Your task to perform on an android device: turn on improve location accuracy Image 0: 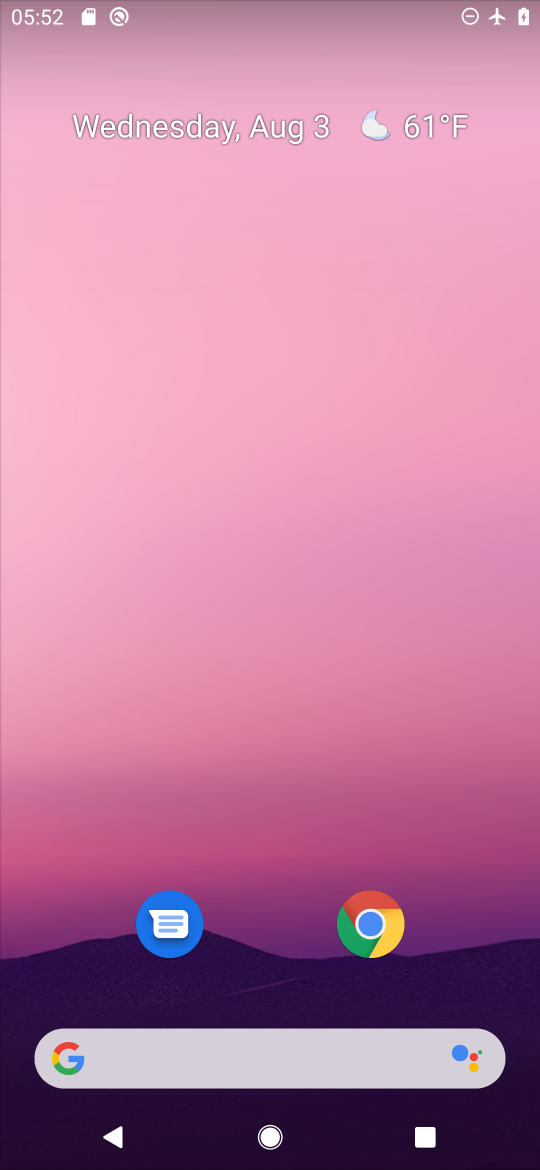
Step 0: drag from (264, 933) to (264, 426)
Your task to perform on an android device: turn on improve location accuracy Image 1: 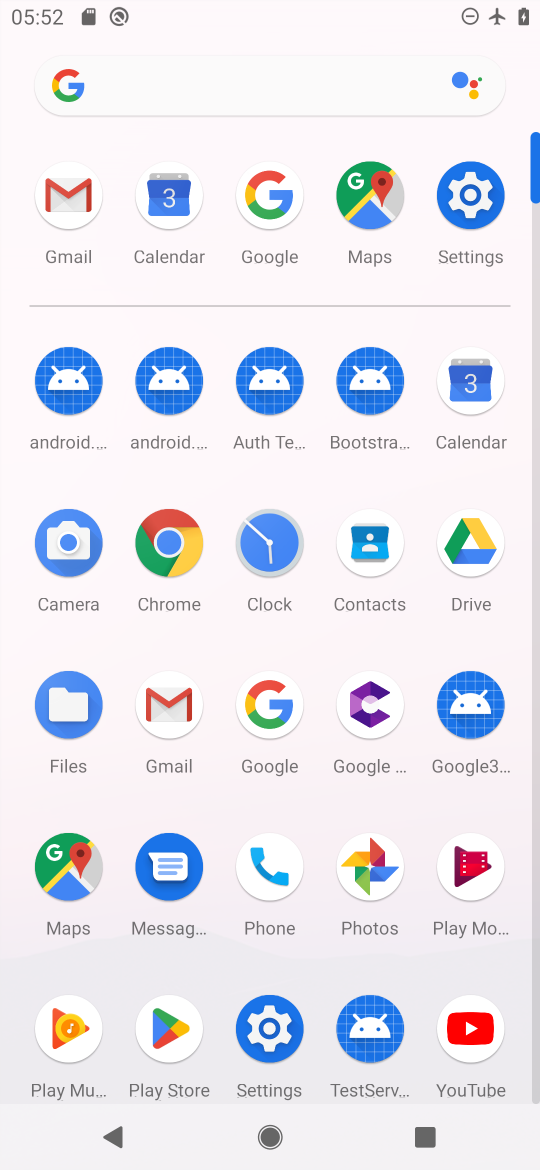
Step 1: click (440, 200)
Your task to perform on an android device: turn on improve location accuracy Image 2: 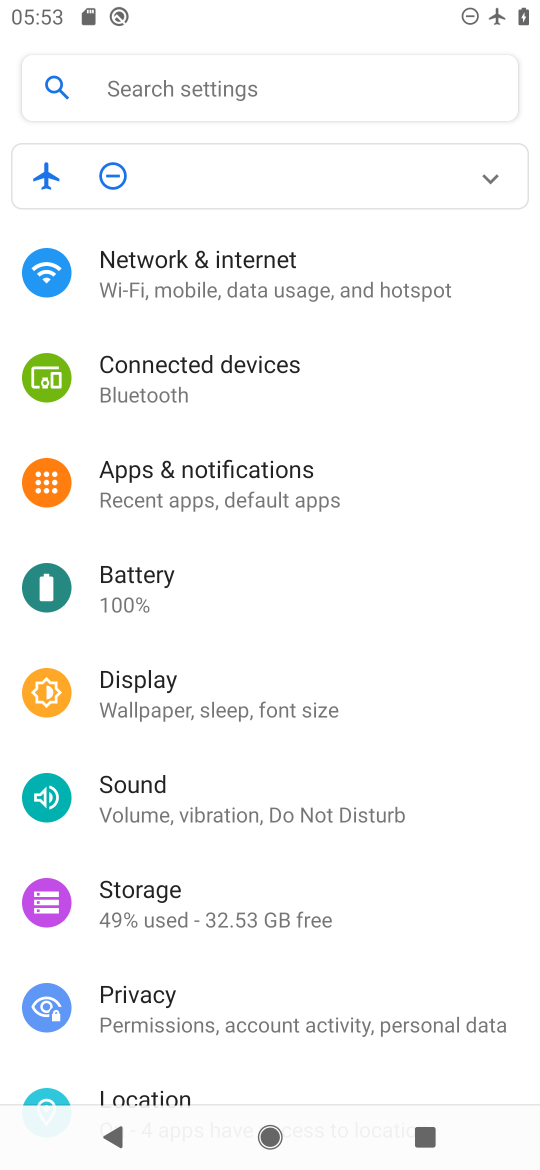
Step 2: drag from (248, 994) to (252, 488)
Your task to perform on an android device: turn on improve location accuracy Image 3: 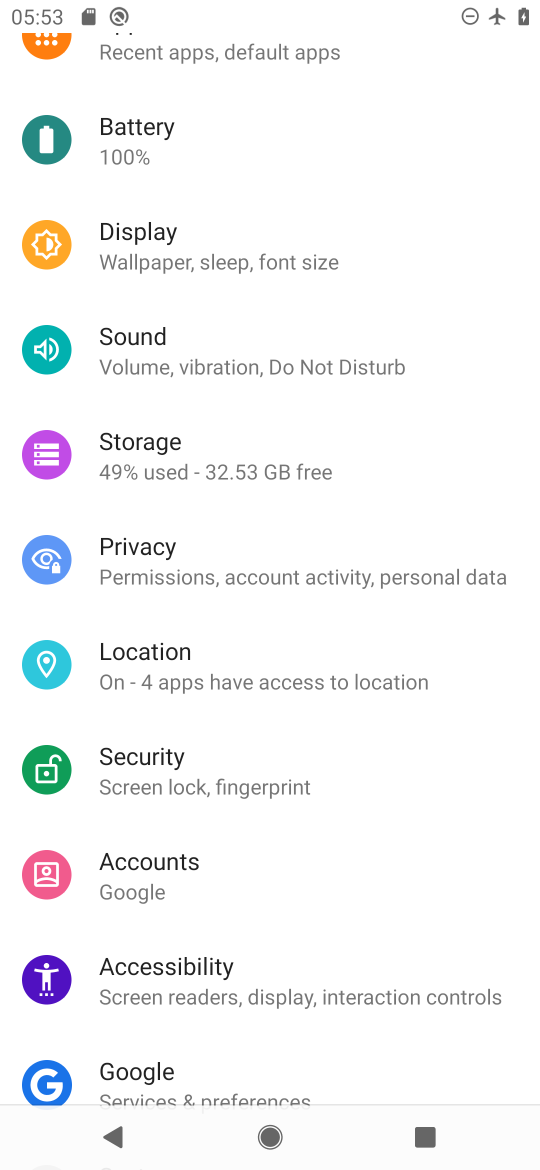
Step 3: click (201, 693)
Your task to perform on an android device: turn on improve location accuracy Image 4: 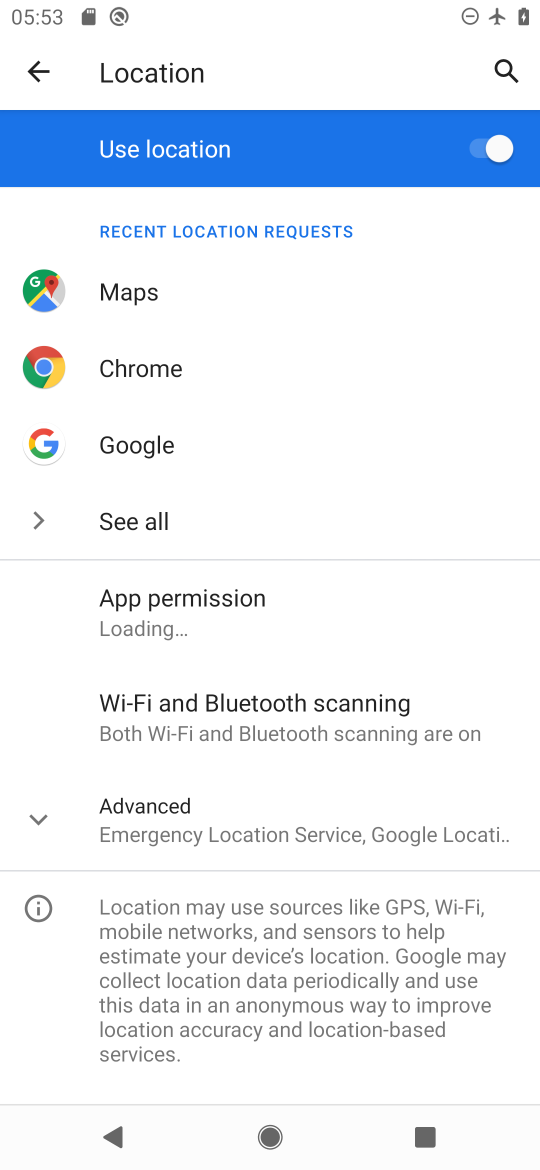
Step 4: click (331, 790)
Your task to perform on an android device: turn on improve location accuracy Image 5: 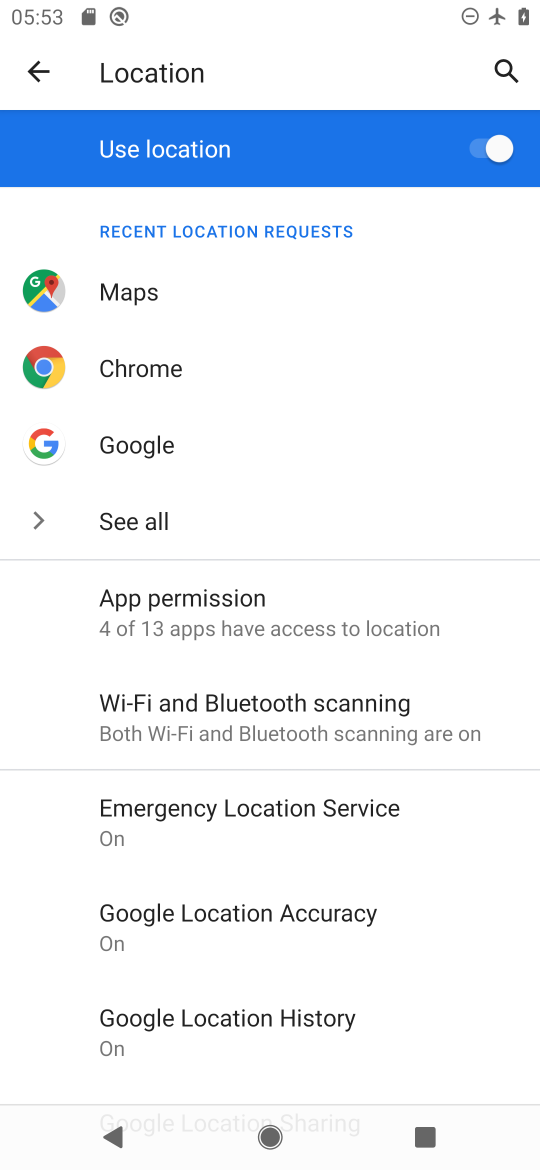
Step 5: click (338, 921)
Your task to perform on an android device: turn on improve location accuracy Image 6: 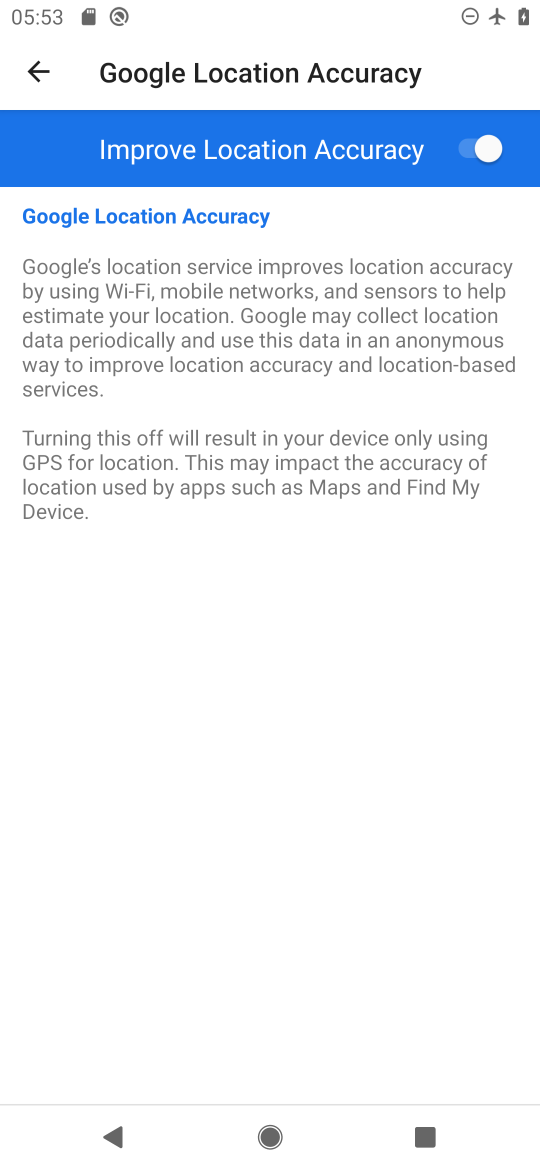
Step 6: task complete